Your task to perform on an android device: set the timer Image 0: 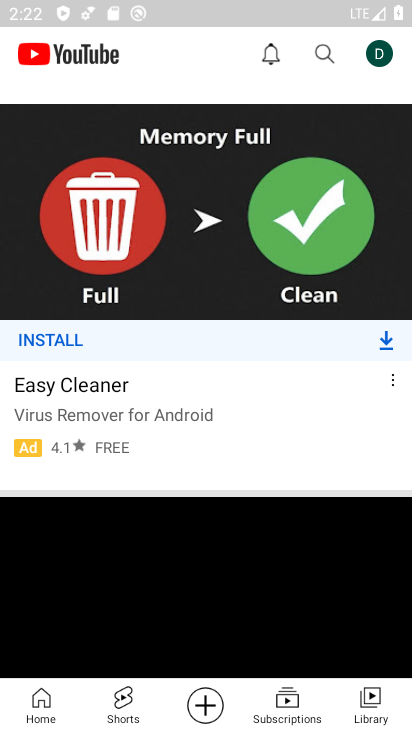
Step 0: press home button
Your task to perform on an android device: set the timer Image 1: 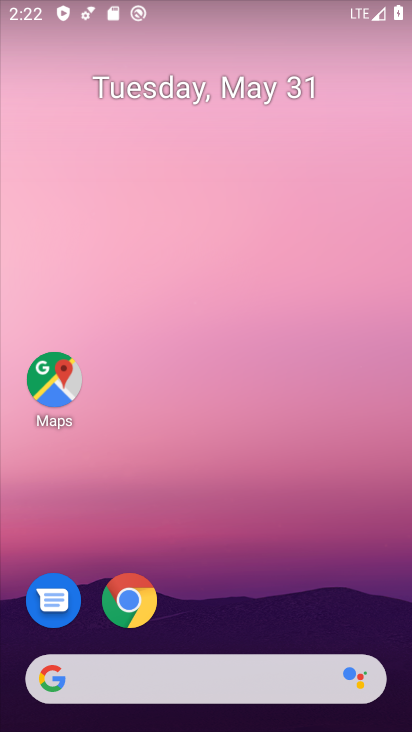
Step 1: drag from (210, 635) to (205, 70)
Your task to perform on an android device: set the timer Image 2: 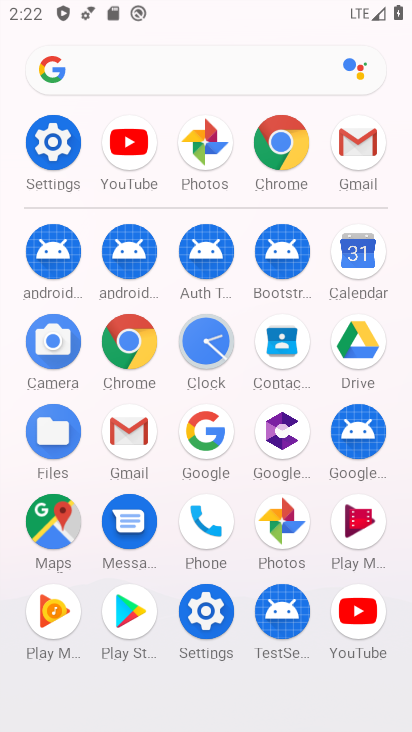
Step 2: click (200, 332)
Your task to perform on an android device: set the timer Image 3: 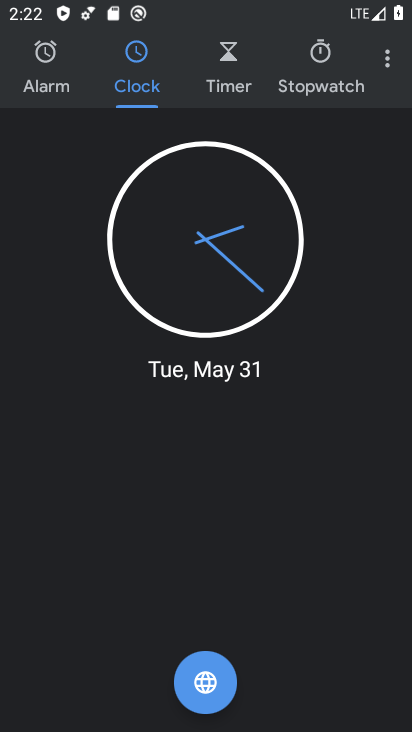
Step 3: click (219, 55)
Your task to perform on an android device: set the timer Image 4: 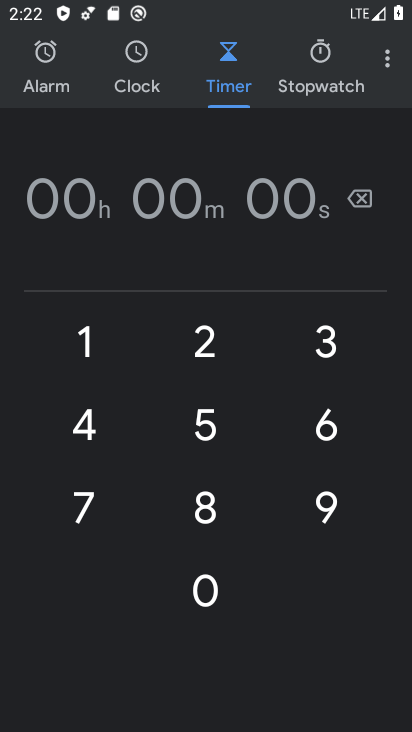
Step 4: click (204, 346)
Your task to perform on an android device: set the timer Image 5: 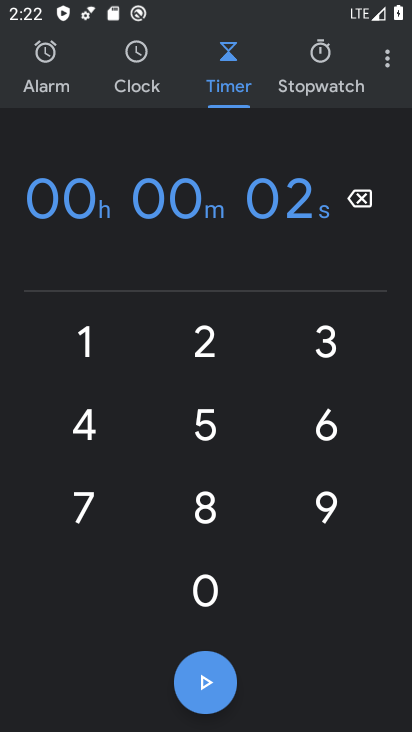
Step 5: click (202, 589)
Your task to perform on an android device: set the timer Image 6: 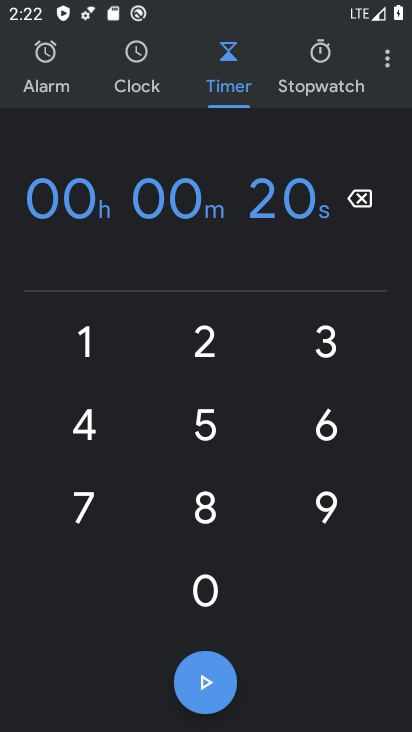
Step 6: click (202, 589)
Your task to perform on an android device: set the timer Image 7: 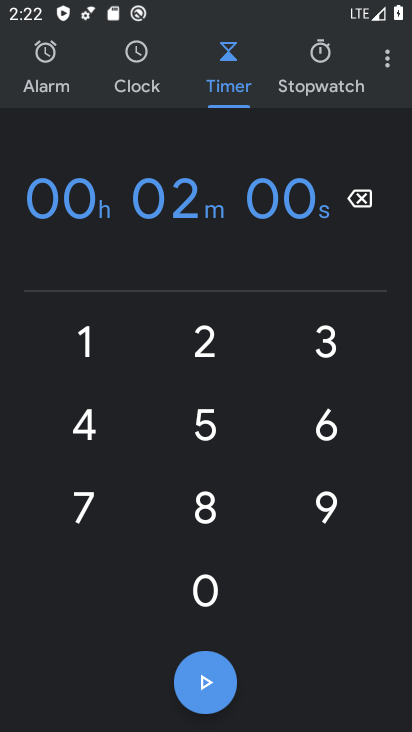
Step 7: click (201, 588)
Your task to perform on an android device: set the timer Image 8: 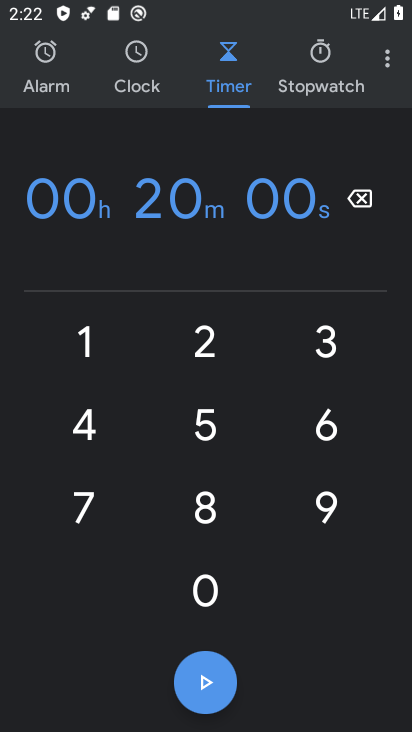
Step 8: click (201, 677)
Your task to perform on an android device: set the timer Image 9: 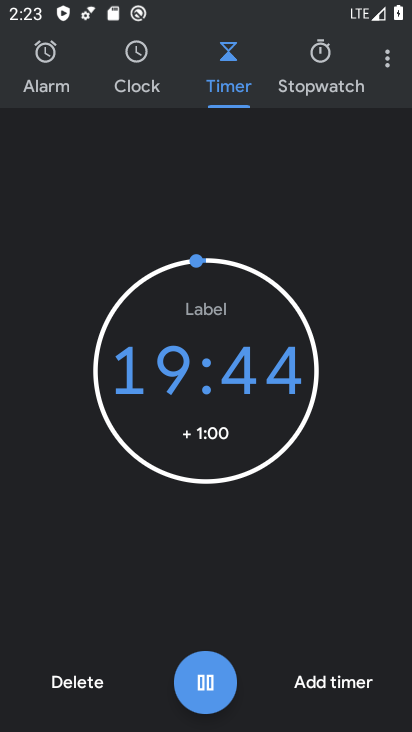
Step 9: task complete